Your task to perform on an android device: turn off priority inbox in the gmail app Image 0: 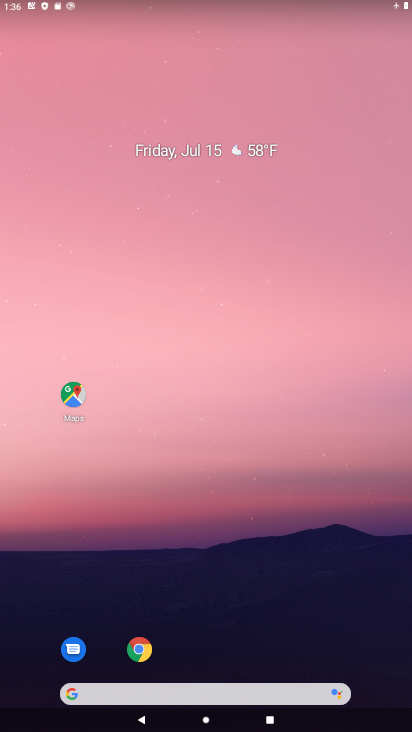
Step 0: drag from (218, 683) to (182, 39)
Your task to perform on an android device: turn off priority inbox in the gmail app Image 1: 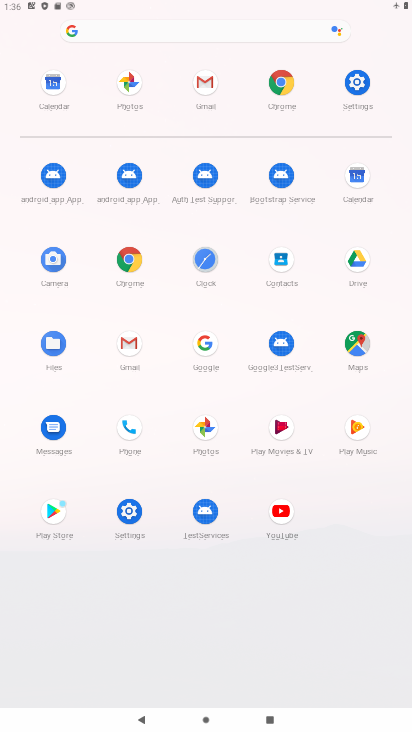
Step 1: click (123, 342)
Your task to perform on an android device: turn off priority inbox in the gmail app Image 2: 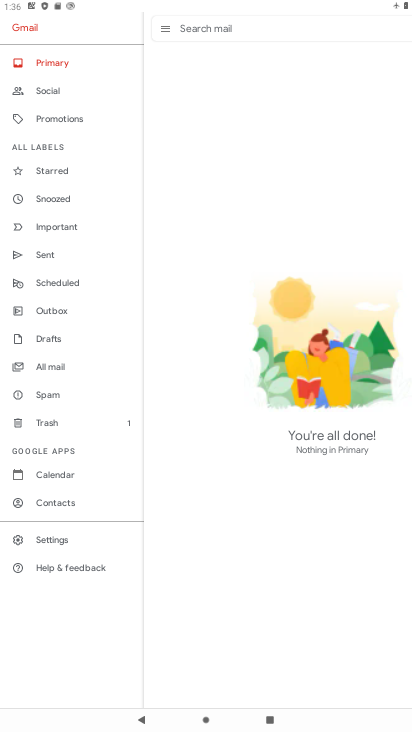
Step 2: click (65, 543)
Your task to perform on an android device: turn off priority inbox in the gmail app Image 3: 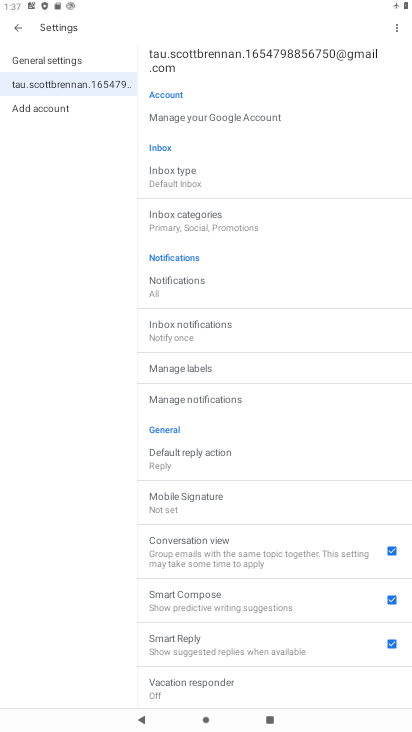
Step 3: click (206, 187)
Your task to perform on an android device: turn off priority inbox in the gmail app Image 4: 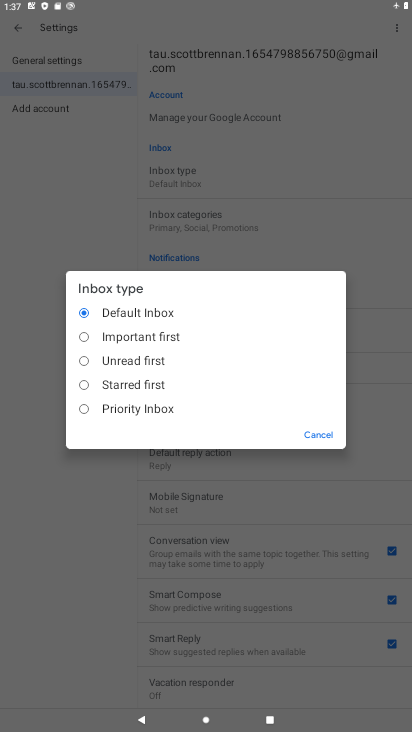
Step 4: click (84, 404)
Your task to perform on an android device: turn off priority inbox in the gmail app Image 5: 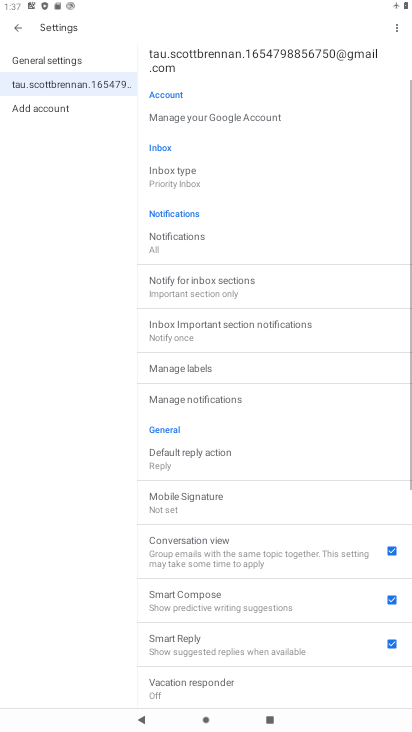
Step 5: click (206, 171)
Your task to perform on an android device: turn off priority inbox in the gmail app Image 6: 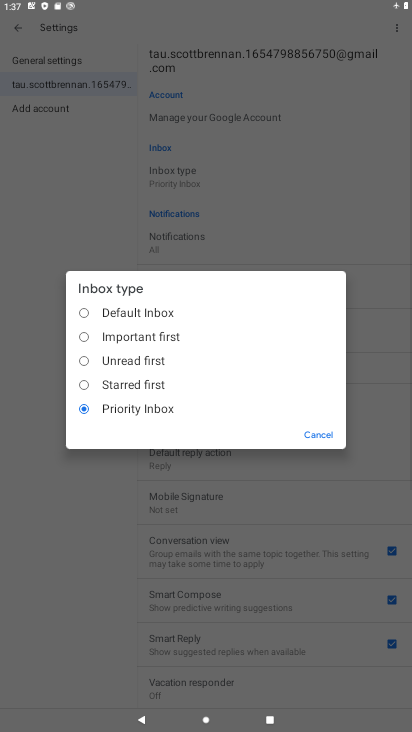
Step 6: click (92, 308)
Your task to perform on an android device: turn off priority inbox in the gmail app Image 7: 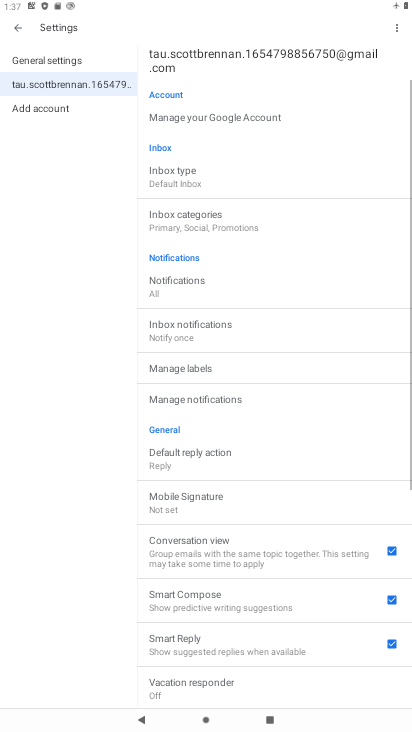
Step 7: task complete